Your task to perform on an android device: turn off airplane mode Image 0: 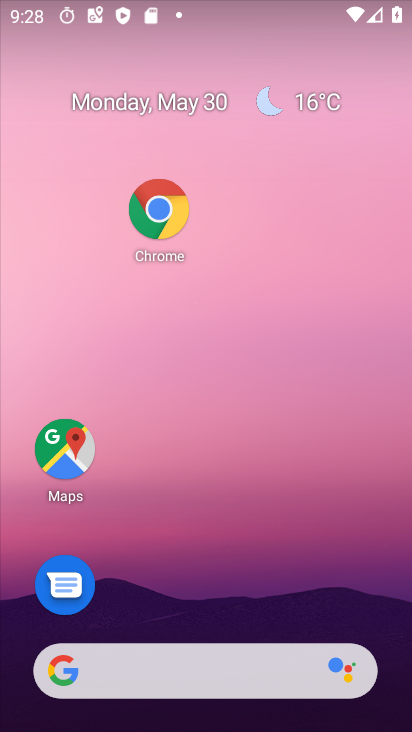
Step 0: drag from (216, 597) to (294, 43)
Your task to perform on an android device: turn off airplane mode Image 1: 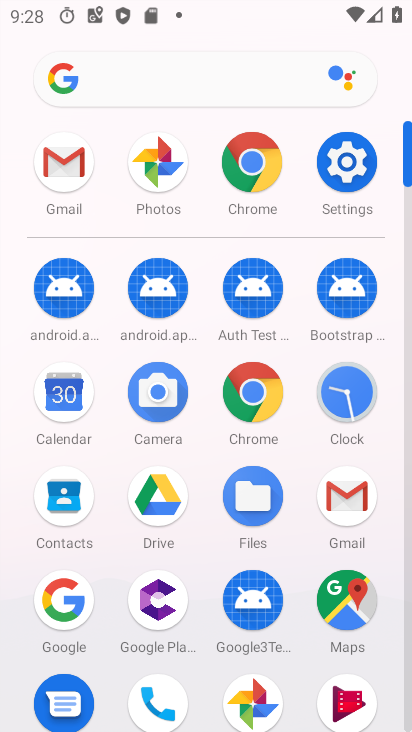
Step 1: click (362, 155)
Your task to perform on an android device: turn off airplane mode Image 2: 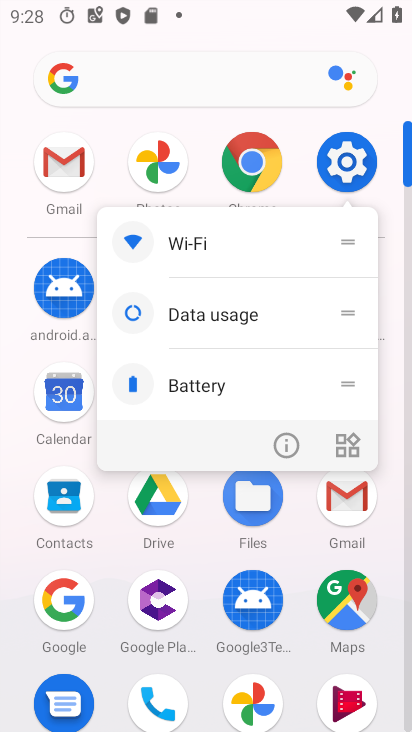
Step 2: click (295, 439)
Your task to perform on an android device: turn off airplane mode Image 3: 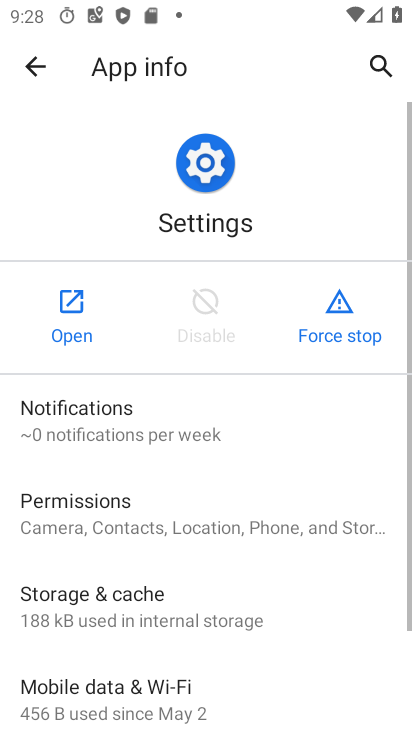
Step 3: click (75, 309)
Your task to perform on an android device: turn off airplane mode Image 4: 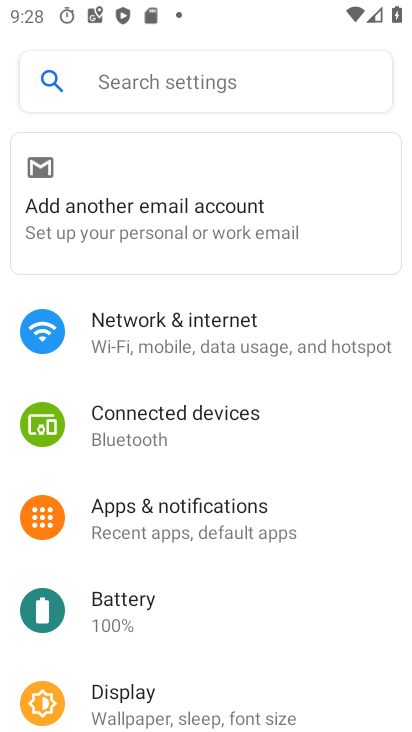
Step 4: click (162, 348)
Your task to perform on an android device: turn off airplane mode Image 5: 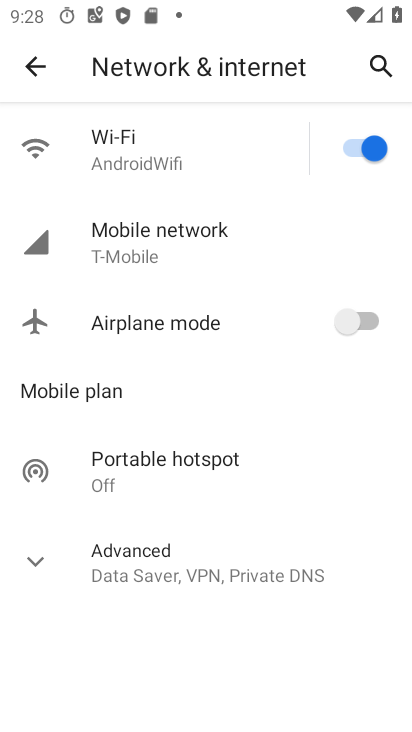
Step 5: click (176, 314)
Your task to perform on an android device: turn off airplane mode Image 6: 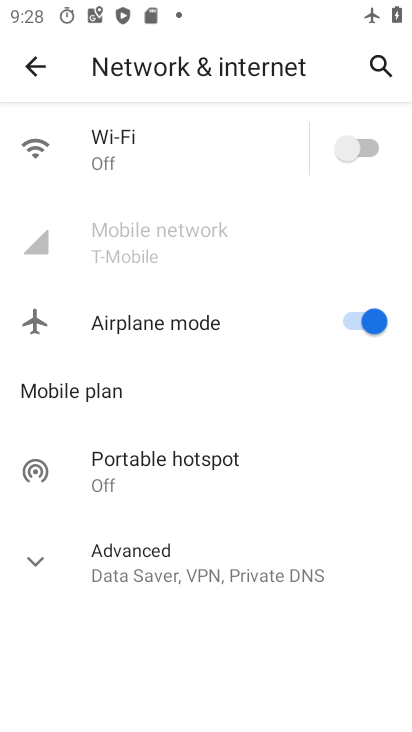
Step 6: click (176, 314)
Your task to perform on an android device: turn off airplane mode Image 7: 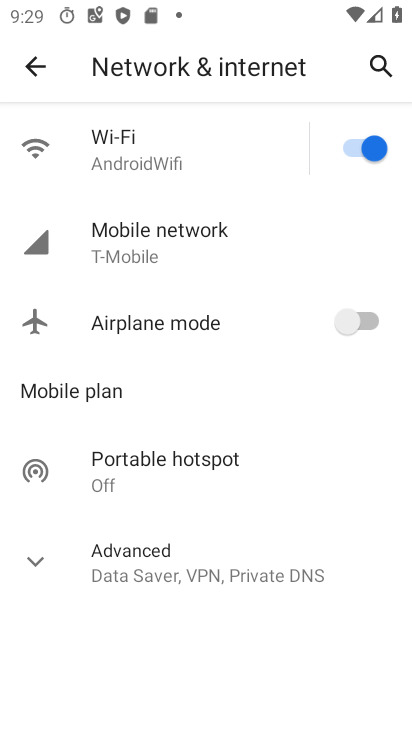
Step 7: task complete